Your task to perform on an android device: turn on notifications settings in the gmail app Image 0: 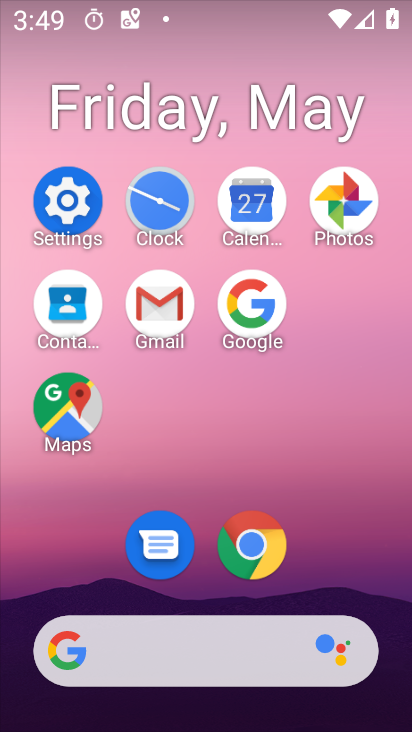
Step 0: click (175, 299)
Your task to perform on an android device: turn on notifications settings in the gmail app Image 1: 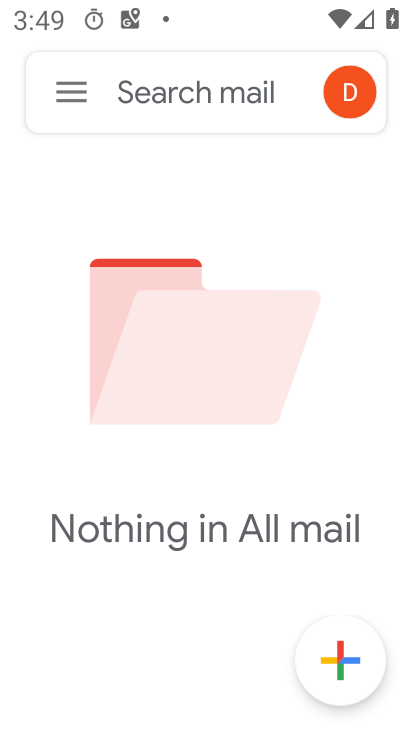
Step 1: click (82, 88)
Your task to perform on an android device: turn on notifications settings in the gmail app Image 2: 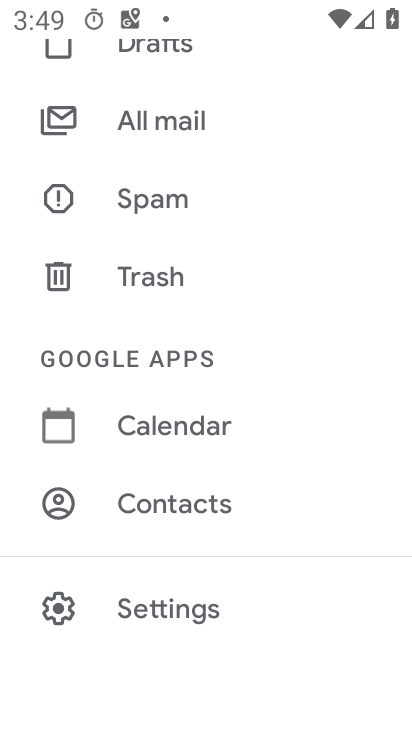
Step 2: drag from (220, 549) to (246, 144)
Your task to perform on an android device: turn on notifications settings in the gmail app Image 3: 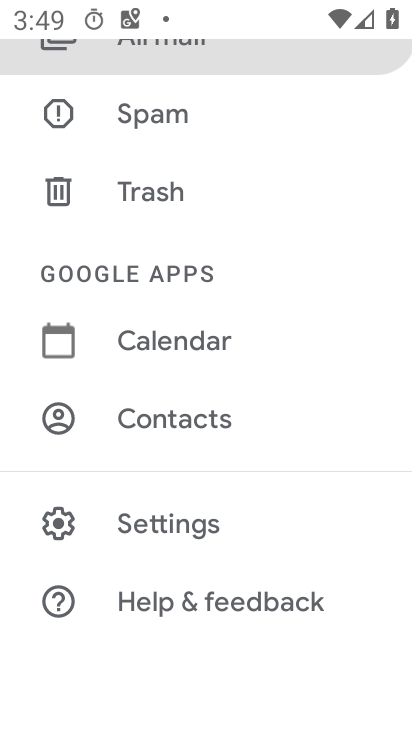
Step 3: click (179, 525)
Your task to perform on an android device: turn on notifications settings in the gmail app Image 4: 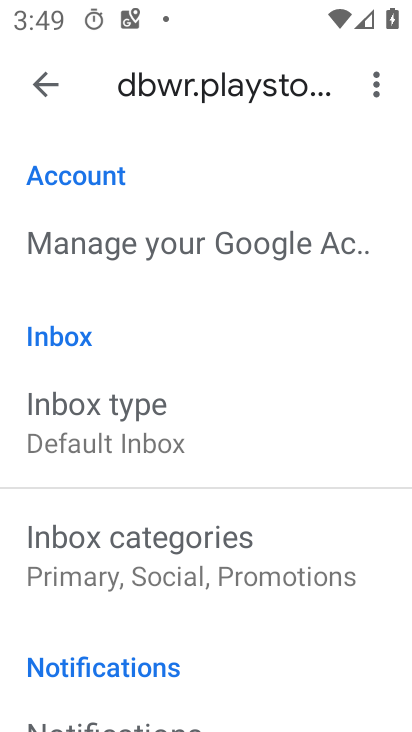
Step 4: drag from (229, 597) to (276, 195)
Your task to perform on an android device: turn on notifications settings in the gmail app Image 5: 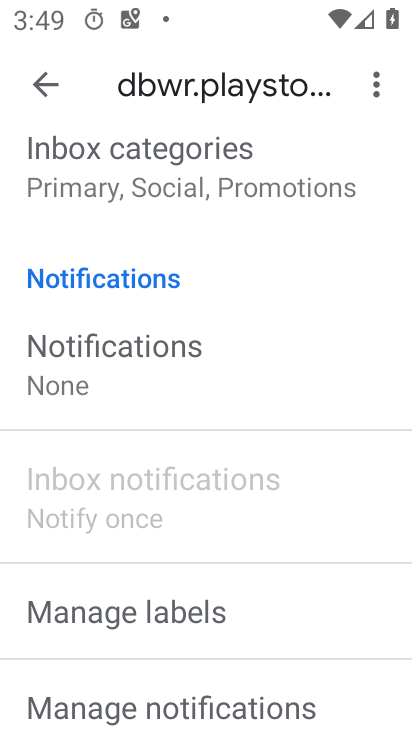
Step 5: click (186, 347)
Your task to perform on an android device: turn on notifications settings in the gmail app Image 6: 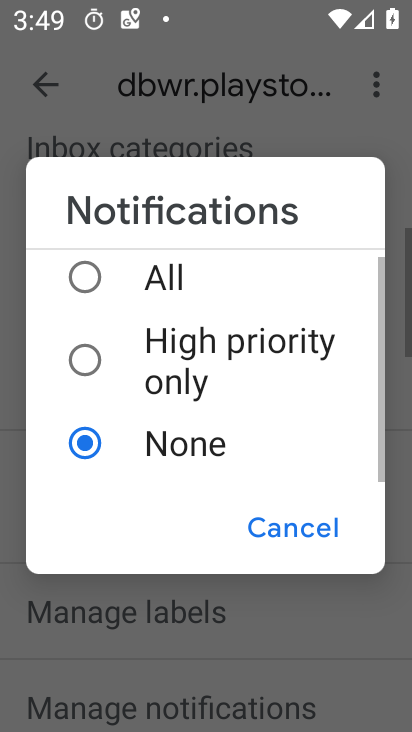
Step 6: click (171, 260)
Your task to perform on an android device: turn on notifications settings in the gmail app Image 7: 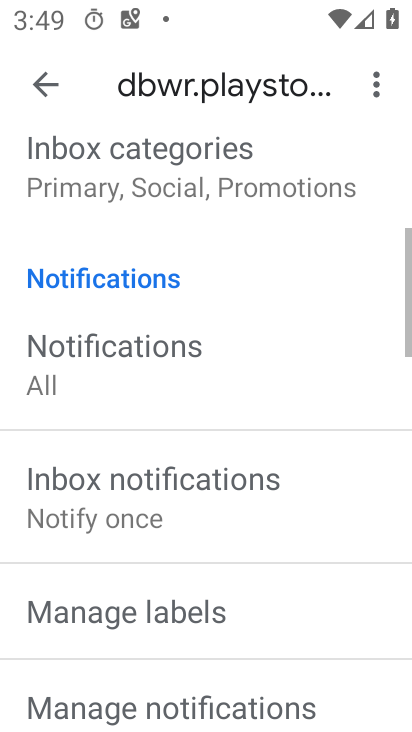
Step 7: task complete